Your task to perform on an android device: What is the news today? Image 0: 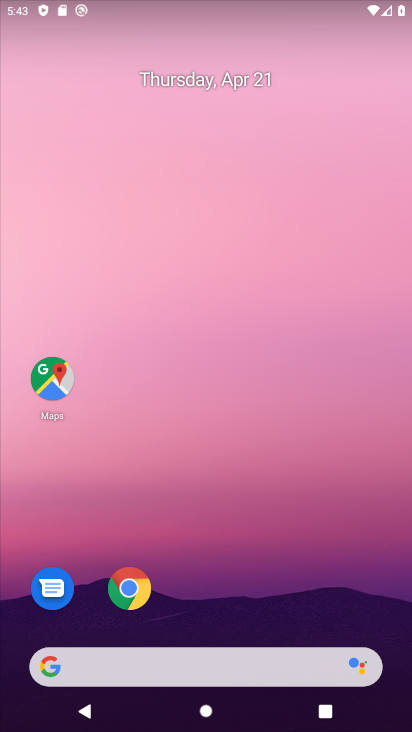
Step 0: drag from (246, 632) to (223, 195)
Your task to perform on an android device: What is the news today? Image 1: 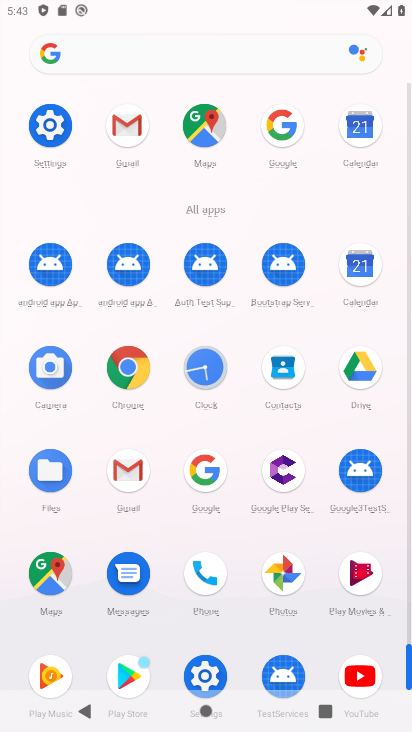
Step 1: click (211, 479)
Your task to perform on an android device: What is the news today? Image 2: 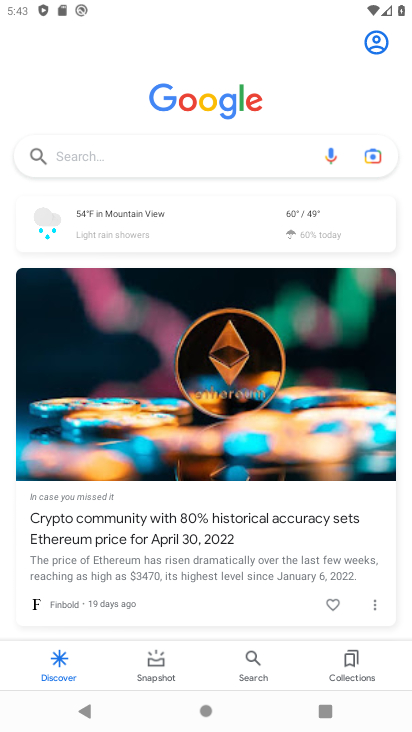
Step 2: task complete